Your task to perform on an android device: Search for the best rated electric lawnmower on Home Depot Image 0: 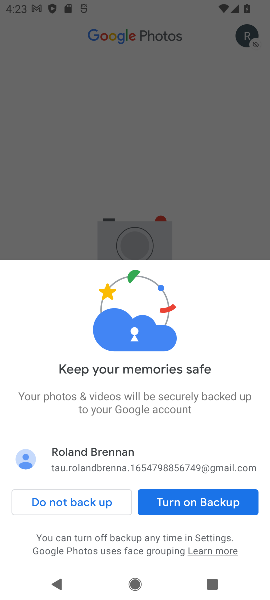
Step 0: press home button
Your task to perform on an android device: Search for the best rated electric lawnmower on Home Depot Image 1: 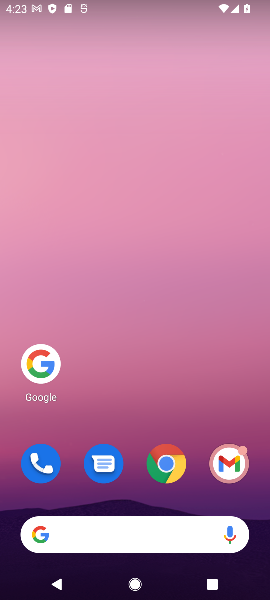
Step 1: click (39, 352)
Your task to perform on an android device: Search for the best rated electric lawnmower on Home Depot Image 2: 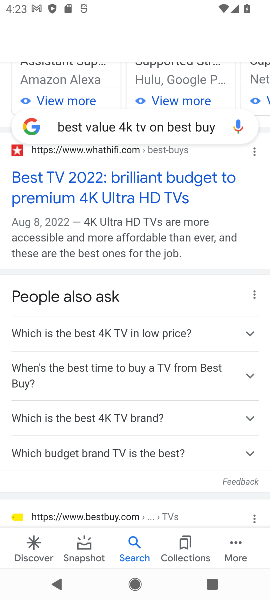
Step 2: click (146, 119)
Your task to perform on an android device: Search for the best rated electric lawnmower on Home Depot Image 3: 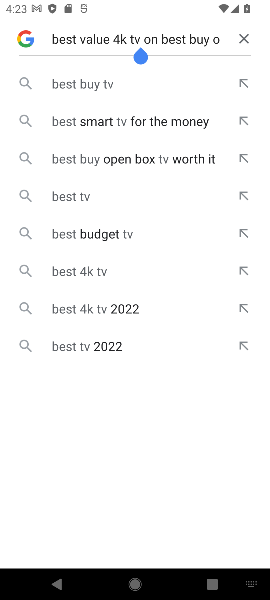
Step 3: click (247, 41)
Your task to perform on an android device: Search for the best rated electric lawnmower on Home Depot Image 4: 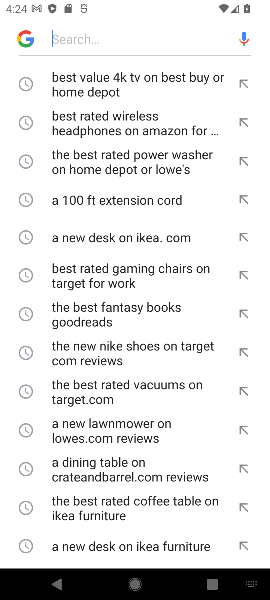
Step 4: click (116, 33)
Your task to perform on an android device: Search for the best rated electric lawnmower on Home Depot Image 5: 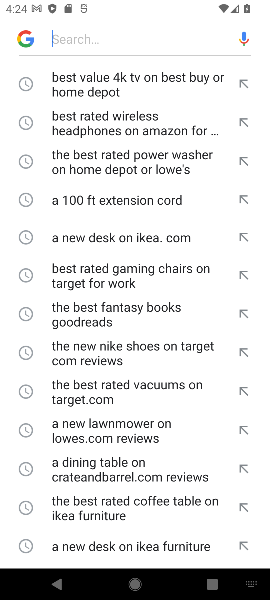
Step 5: type " best rated electric lawnmower on Home Depot "
Your task to perform on an android device: Search for the best rated electric lawnmower on Home Depot Image 6: 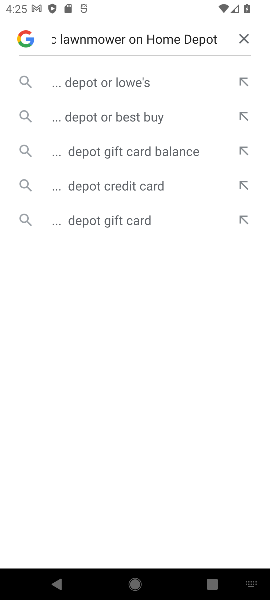
Step 6: click (95, 80)
Your task to perform on an android device: Search for the best rated electric lawnmower on Home Depot Image 7: 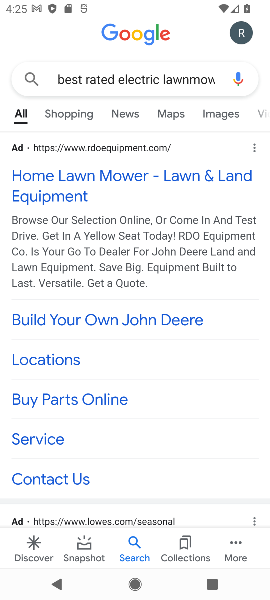
Step 7: task complete